Your task to perform on an android device: Go to privacy settings Image 0: 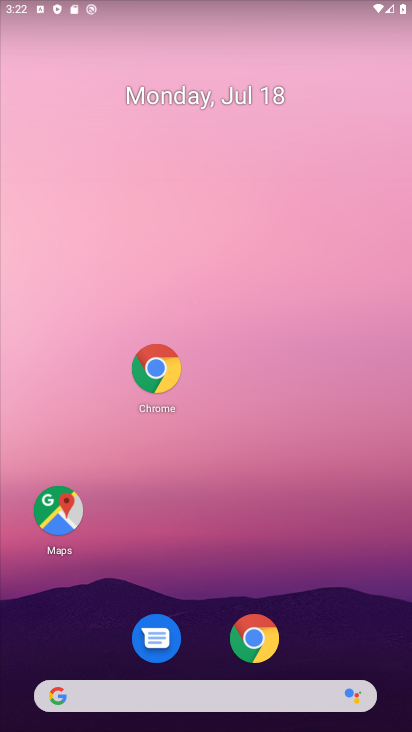
Step 0: drag from (310, 586) to (296, 207)
Your task to perform on an android device: Go to privacy settings Image 1: 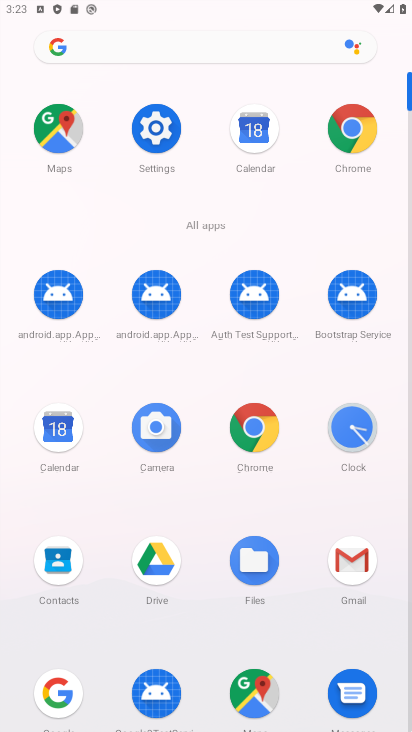
Step 1: click (158, 125)
Your task to perform on an android device: Go to privacy settings Image 2: 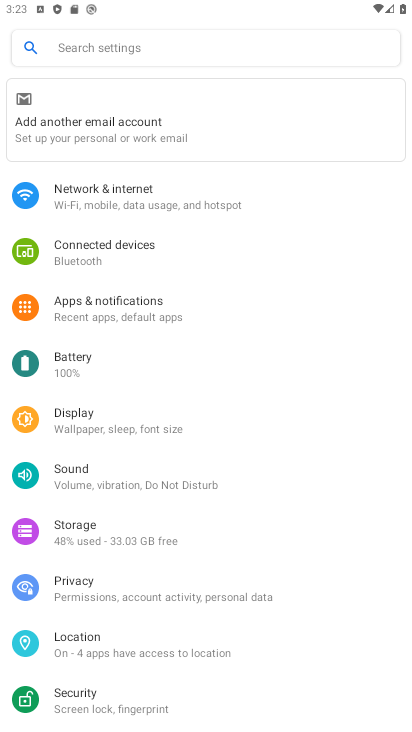
Step 2: click (110, 598)
Your task to perform on an android device: Go to privacy settings Image 3: 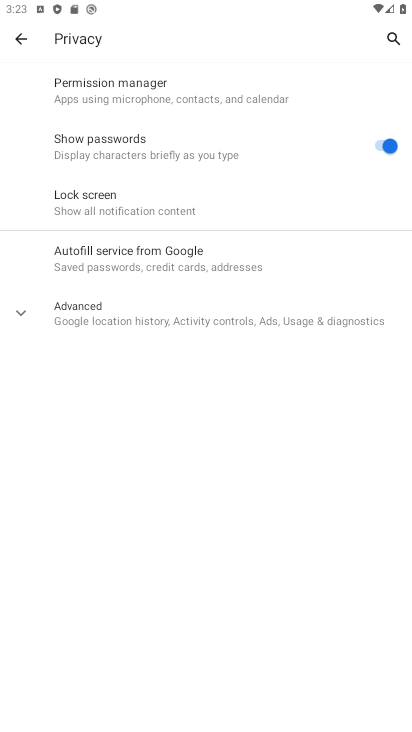
Step 3: task complete